Your task to perform on an android device: turn on location history Image 0: 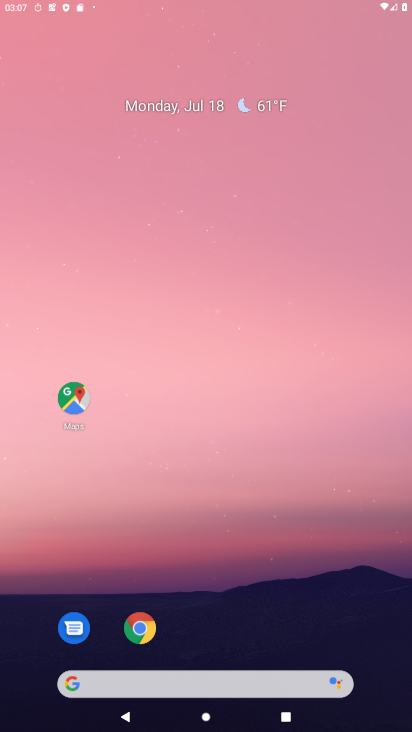
Step 0: drag from (185, 682) to (200, 317)
Your task to perform on an android device: turn on location history Image 1: 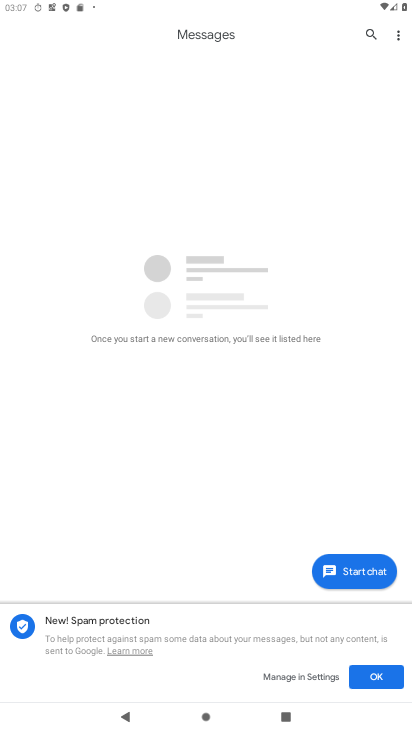
Step 1: press home button
Your task to perform on an android device: turn on location history Image 2: 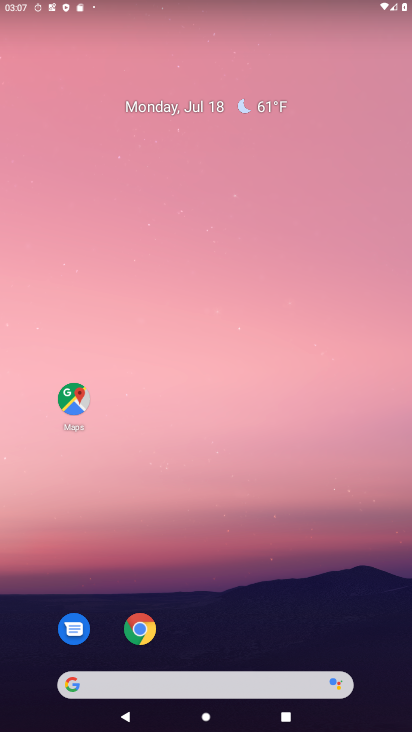
Step 2: drag from (226, 680) to (190, 187)
Your task to perform on an android device: turn on location history Image 3: 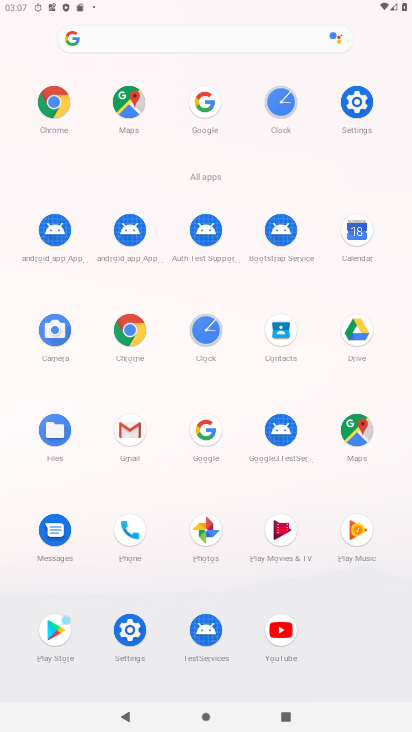
Step 3: click (131, 631)
Your task to perform on an android device: turn on location history Image 4: 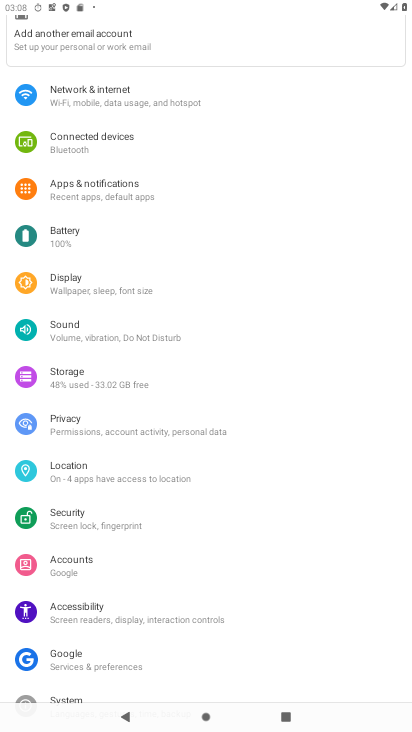
Step 4: click (75, 473)
Your task to perform on an android device: turn on location history Image 5: 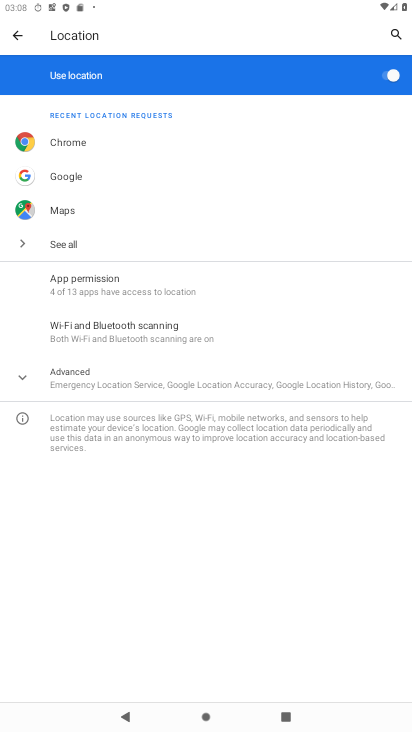
Step 5: click (105, 384)
Your task to perform on an android device: turn on location history Image 6: 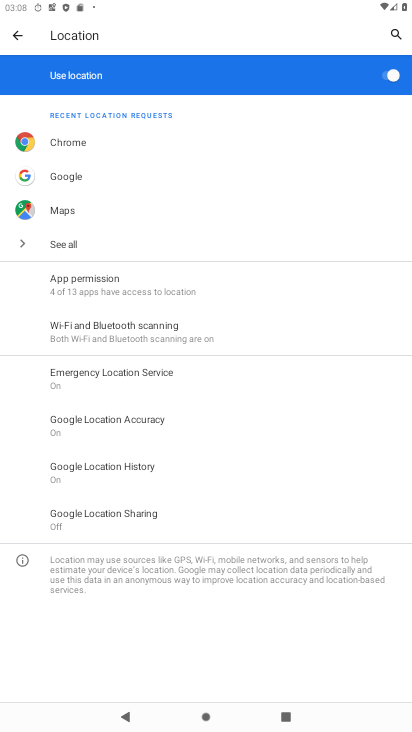
Step 6: task complete